Your task to perform on an android device: open the mobile data screen to see how much data has been used Image 0: 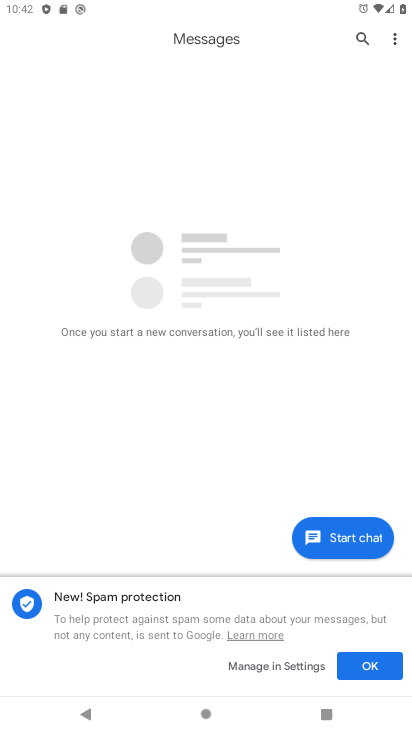
Step 0: press home button
Your task to perform on an android device: open the mobile data screen to see how much data has been used Image 1: 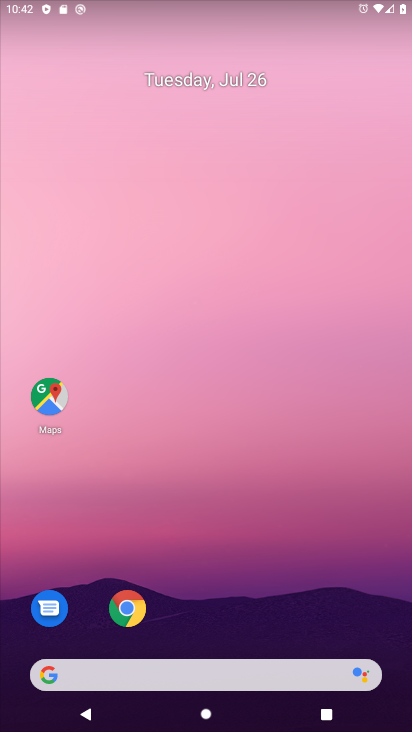
Step 1: drag from (217, 647) to (204, 198)
Your task to perform on an android device: open the mobile data screen to see how much data has been used Image 2: 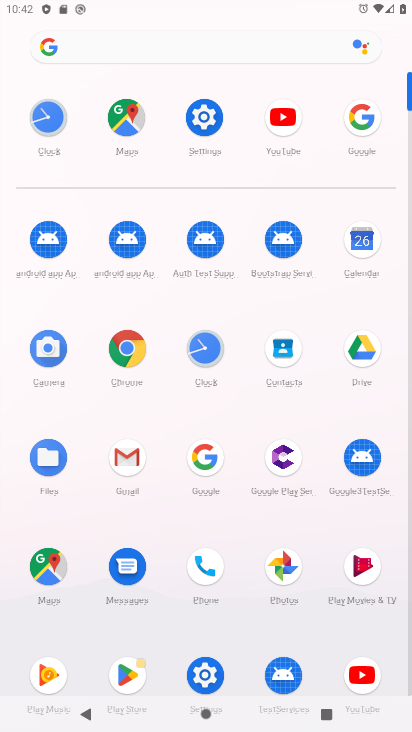
Step 2: click (205, 114)
Your task to perform on an android device: open the mobile data screen to see how much data has been used Image 3: 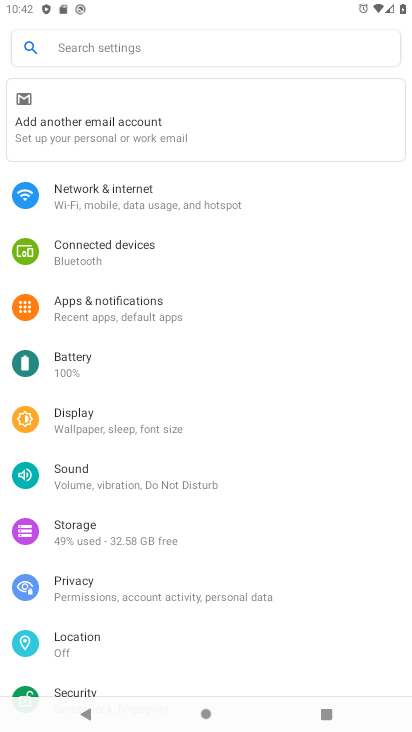
Step 3: click (91, 195)
Your task to perform on an android device: open the mobile data screen to see how much data has been used Image 4: 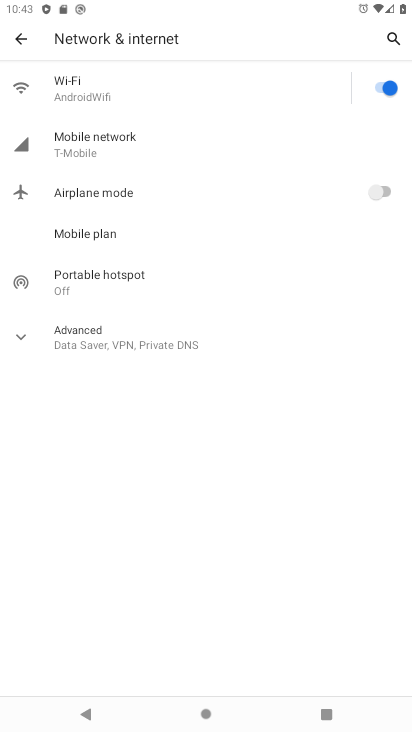
Step 4: click (91, 143)
Your task to perform on an android device: open the mobile data screen to see how much data has been used Image 5: 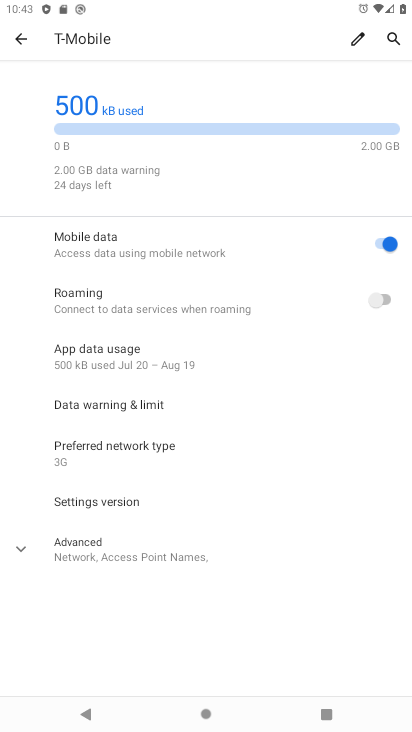
Step 5: click (109, 355)
Your task to perform on an android device: open the mobile data screen to see how much data has been used Image 6: 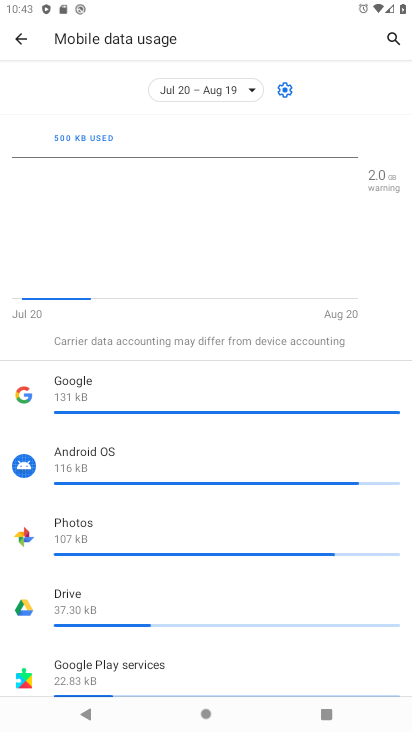
Step 6: task complete